Your task to perform on an android device: Open Google Maps Image 0: 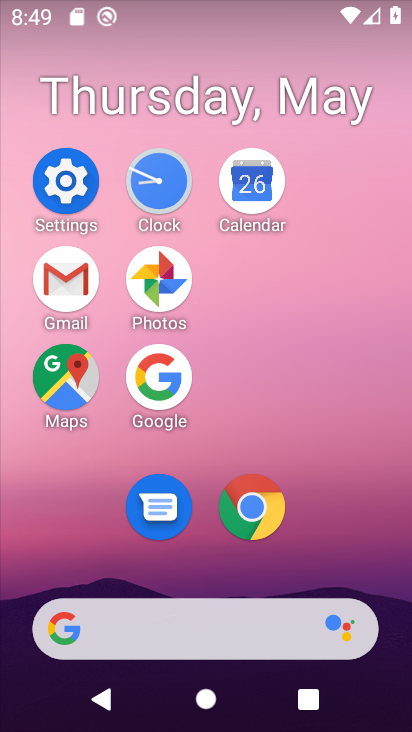
Step 0: click (70, 370)
Your task to perform on an android device: Open Google Maps Image 1: 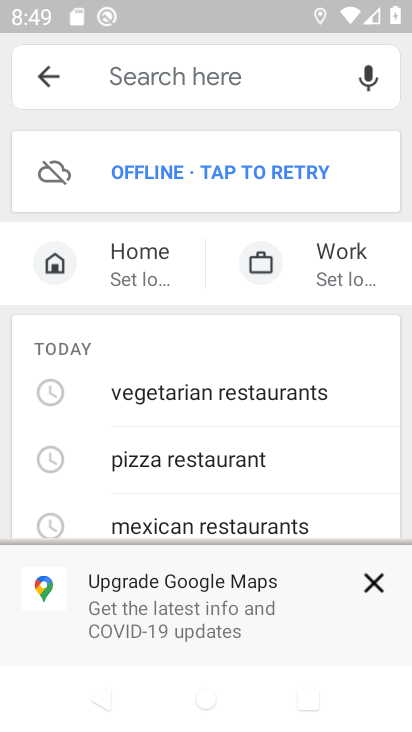
Step 1: task complete